Your task to perform on an android device: Go to wifi settings Image 0: 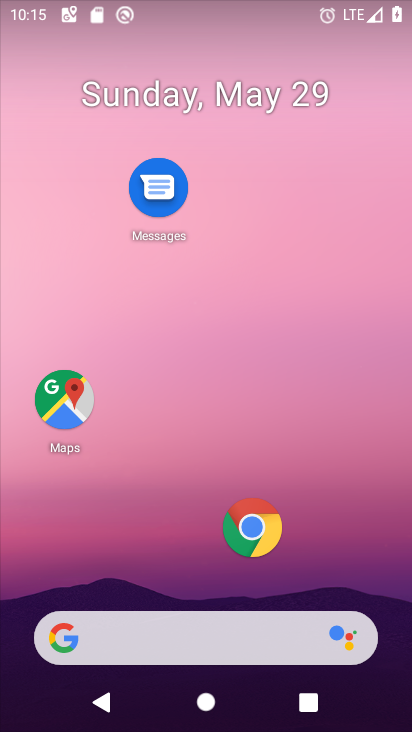
Step 0: drag from (190, 584) to (188, 46)
Your task to perform on an android device: Go to wifi settings Image 1: 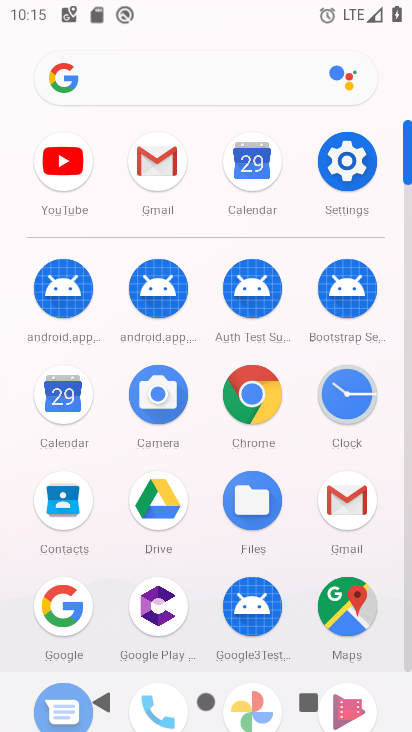
Step 1: click (342, 153)
Your task to perform on an android device: Go to wifi settings Image 2: 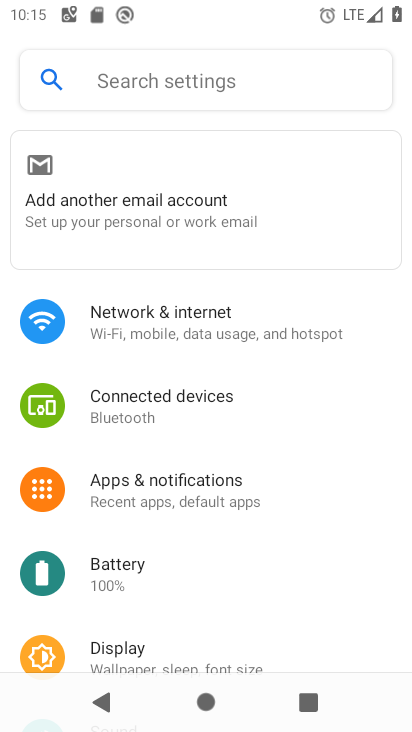
Step 2: click (243, 311)
Your task to perform on an android device: Go to wifi settings Image 3: 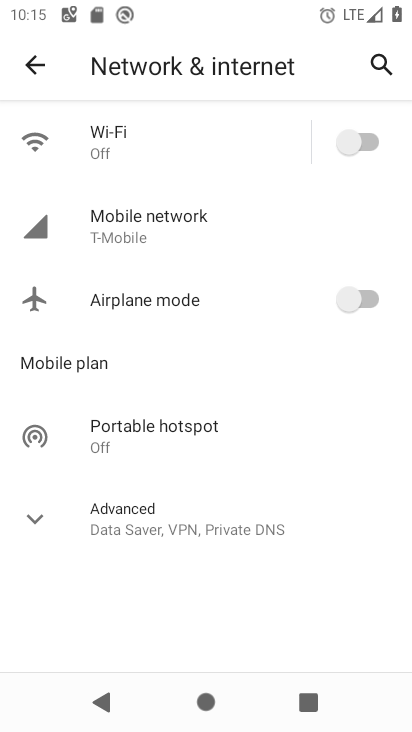
Step 3: click (34, 512)
Your task to perform on an android device: Go to wifi settings Image 4: 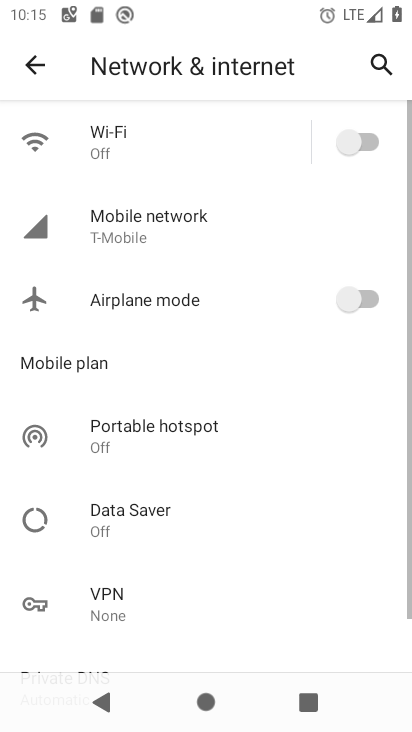
Step 4: click (163, 140)
Your task to perform on an android device: Go to wifi settings Image 5: 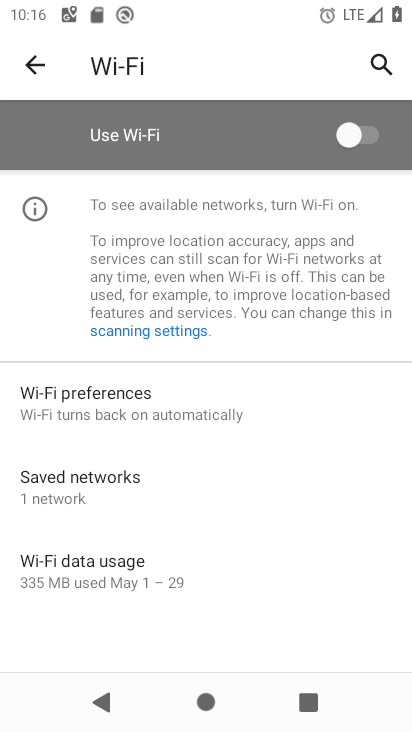
Step 5: click (365, 127)
Your task to perform on an android device: Go to wifi settings Image 6: 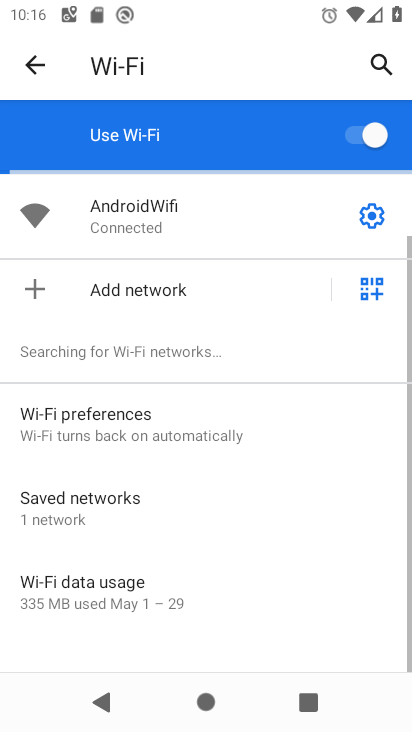
Step 6: task complete